Your task to perform on an android device: turn on translation in the chrome app Image 0: 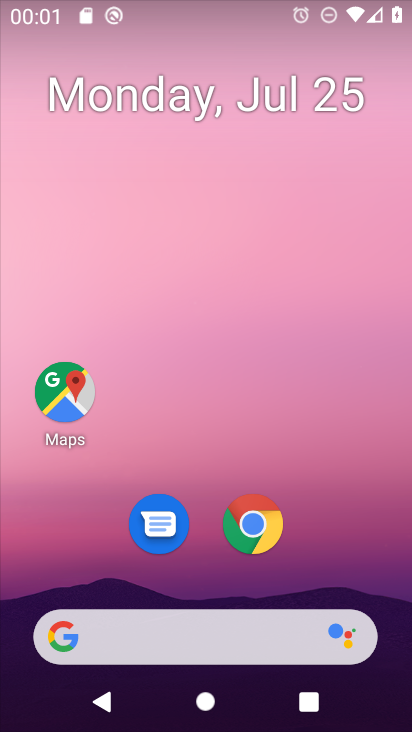
Step 0: press home button
Your task to perform on an android device: turn on translation in the chrome app Image 1: 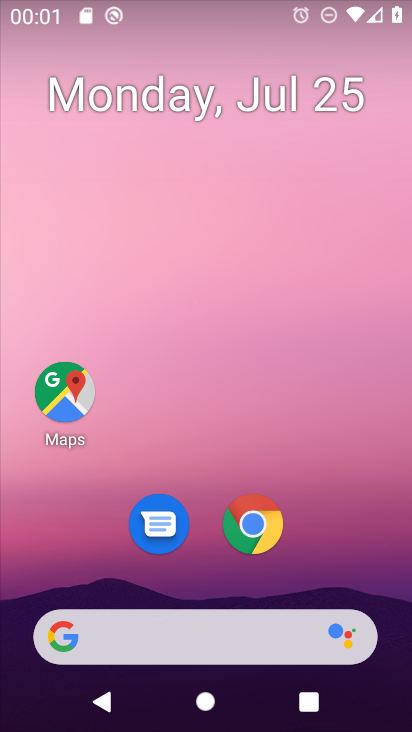
Step 1: drag from (161, 633) to (226, 151)
Your task to perform on an android device: turn on translation in the chrome app Image 2: 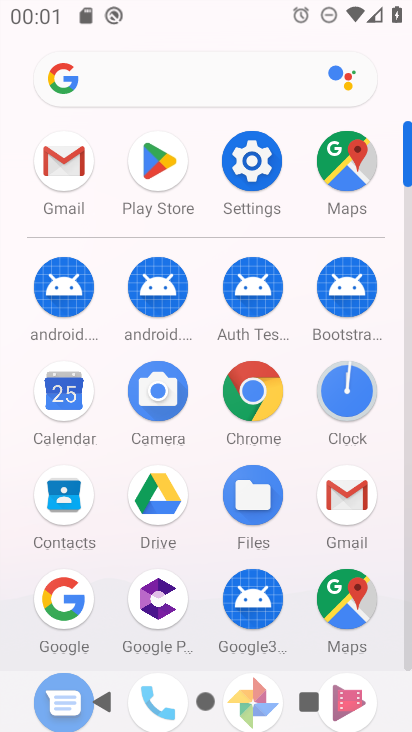
Step 2: click (249, 396)
Your task to perform on an android device: turn on translation in the chrome app Image 3: 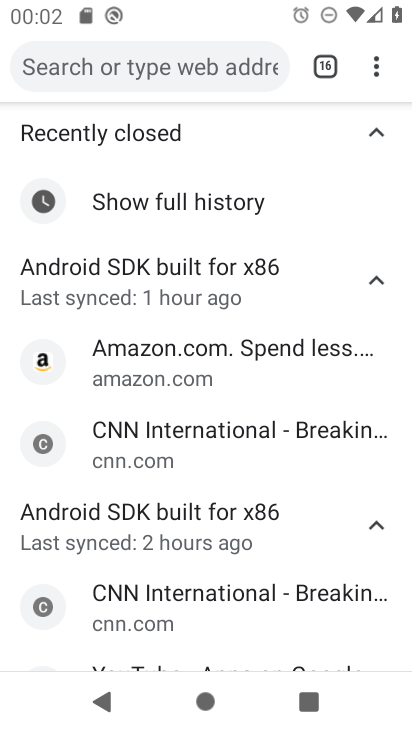
Step 3: drag from (373, 66) to (237, 566)
Your task to perform on an android device: turn on translation in the chrome app Image 4: 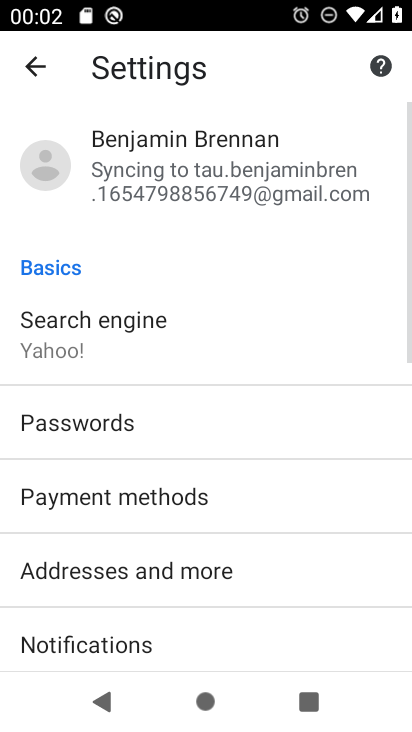
Step 4: drag from (316, 583) to (279, 218)
Your task to perform on an android device: turn on translation in the chrome app Image 5: 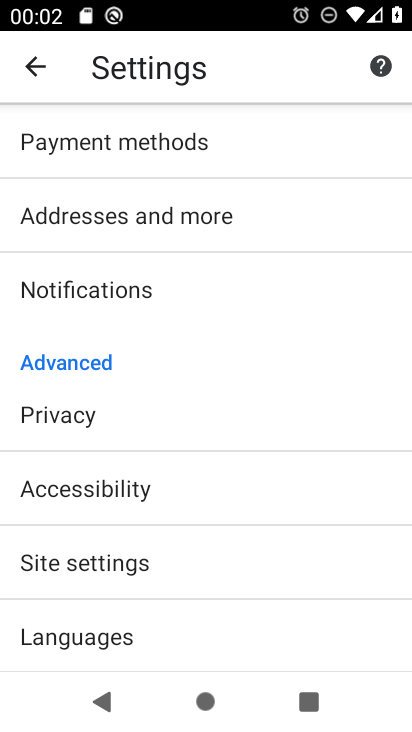
Step 5: click (143, 632)
Your task to perform on an android device: turn on translation in the chrome app Image 6: 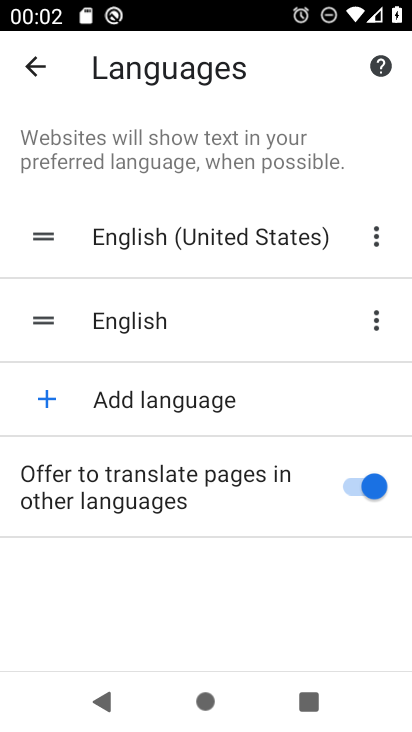
Step 6: task complete